Your task to perform on an android device: Open the Play Movies app and select the watchlist tab. Image 0: 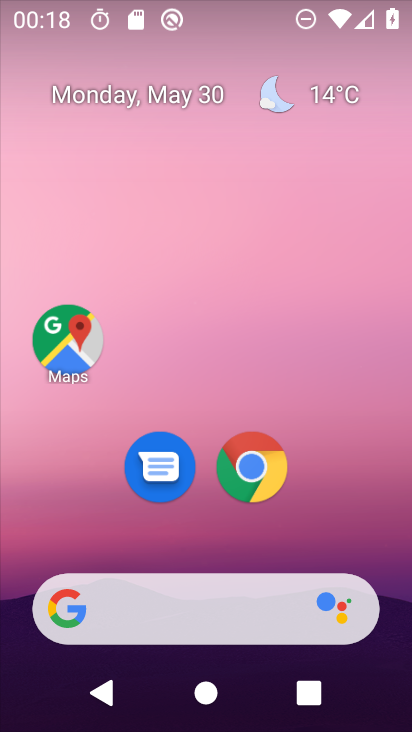
Step 0: drag from (188, 544) to (194, 185)
Your task to perform on an android device: Open the Play Movies app and select the watchlist tab. Image 1: 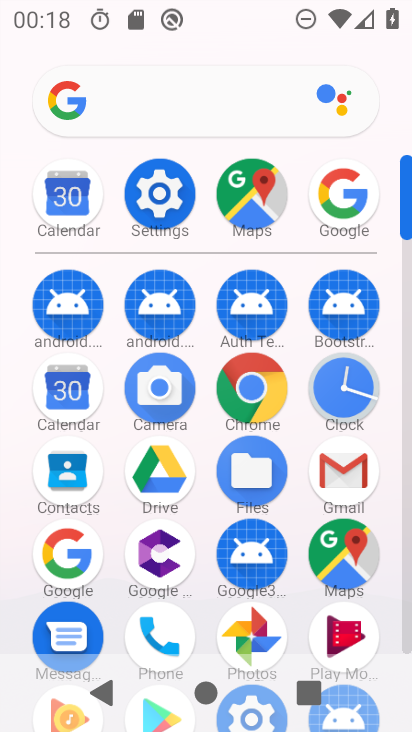
Step 1: drag from (199, 523) to (223, 262)
Your task to perform on an android device: Open the Play Movies app and select the watchlist tab. Image 2: 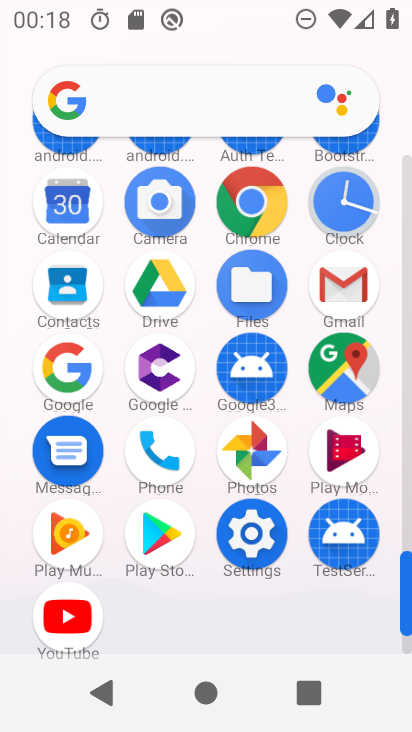
Step 2: click (335, 461)
Your task to perform on an android device: Open the Play Movies app and select the watchlist tab. Image 3: 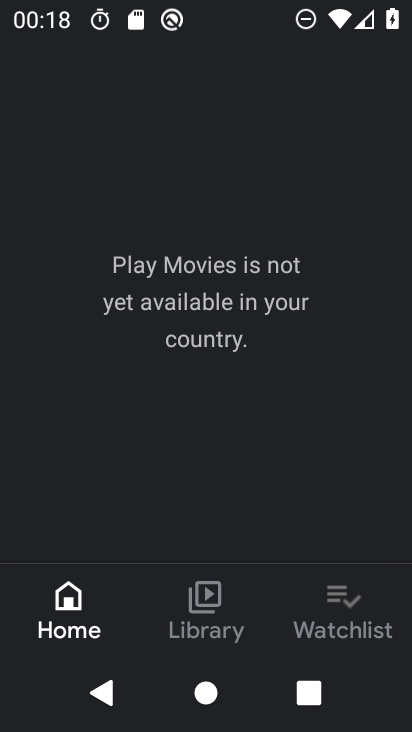
Step 3: click (325, 617)
Your task to perform on an android device: Open the Play Movies app and select the watchlist tab. Image 4: 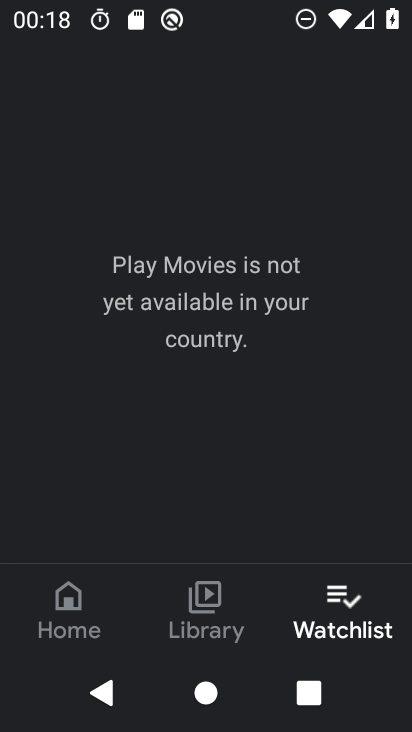
Step 4: task complete